Your task to perform on an android device: open the mobile data screen to see how much data has been used Image 0: 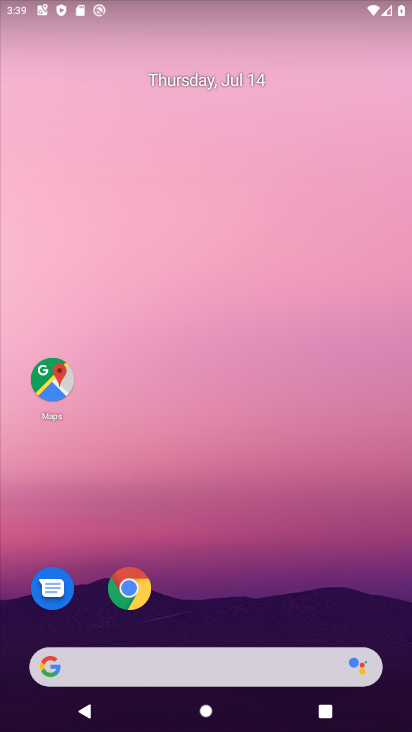
Step 0: drag from (302, 597) to (317, 130)
Your task to perform on an android device: open the mobile data screen to see how much data has been used Image 1: 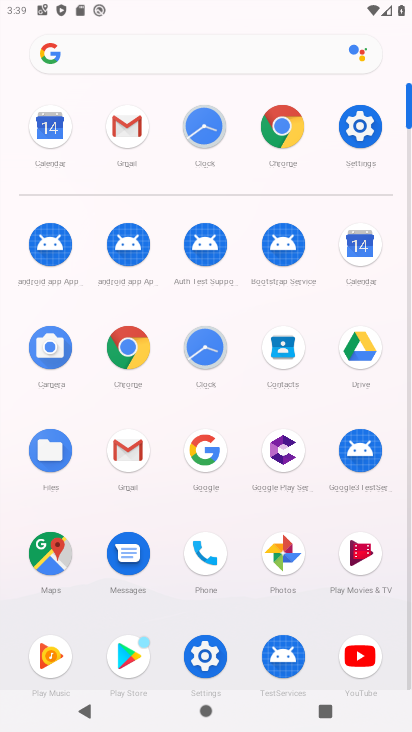
Step 1: click (351, 122)
Your task to perform on an android device: open the mobile data screen to see how much data has been used Image 2: 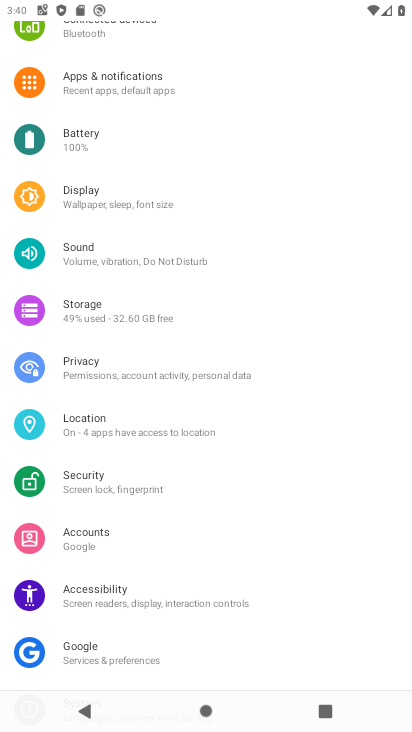
Step 2: drag from (168, 97) to (183, 550)
Your task to perform on an android device: open the mobile data screen to see how much data has been used Image 3: 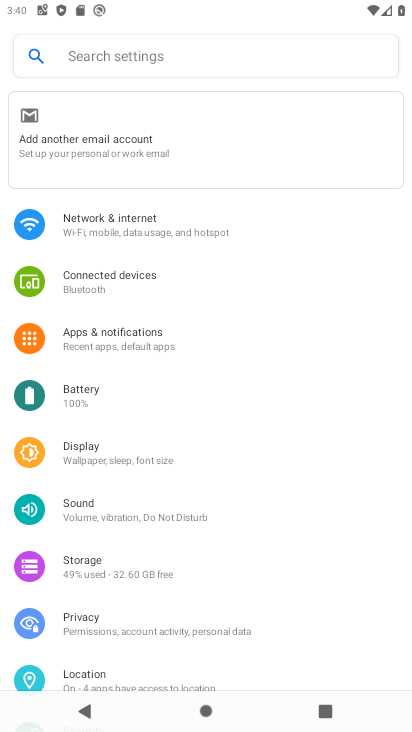
Step 3: click (84, 230)
Your task to perform on an android device: open the mobile data screen to see how much data has been used Image 4: 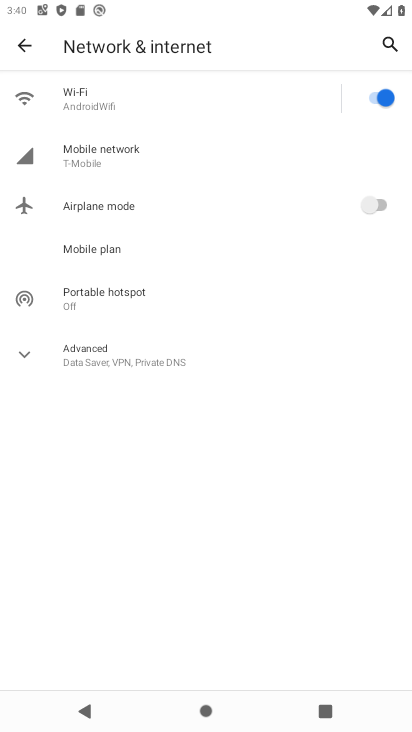
Step 4: click (88, 148)
Your task to perform on an android device: open the mobile data screen to see how much data has been used Image 5: 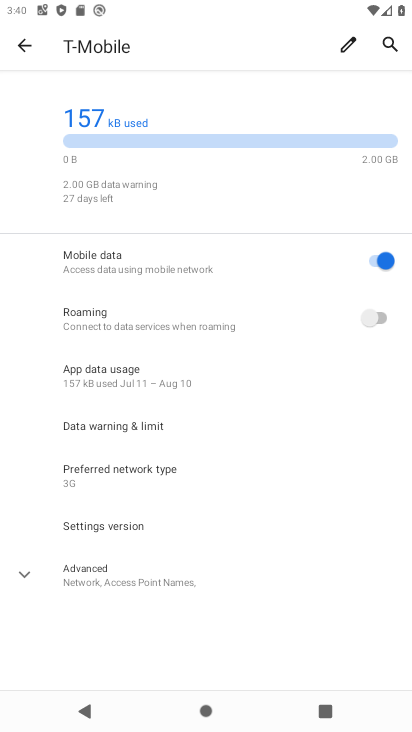
Step 5: task complete